Your task to perform on an android device: Check the weather Image 0: 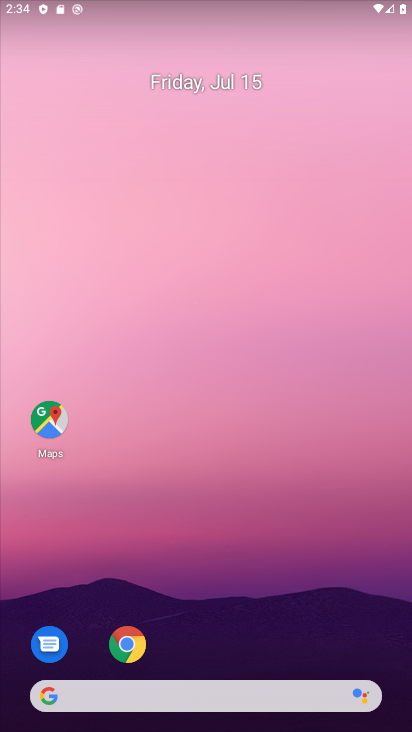
Step 0: drag from (141, 711) to (124, 50)
Your task to perform on an android device: Check the weather Image 1: 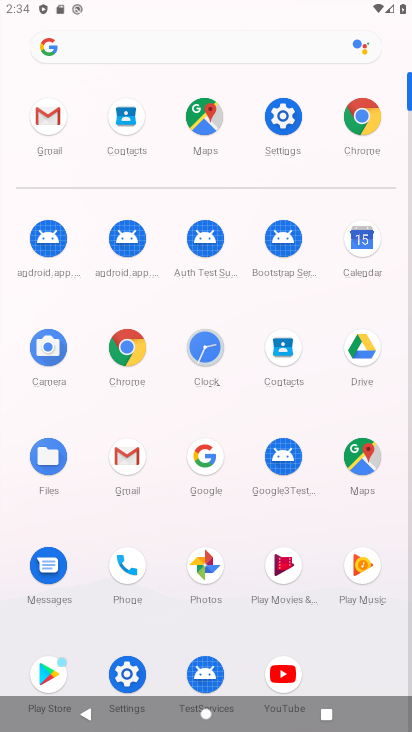
Step 1: click (127, 352)
Your task to perform on an android device: Check the weather Image 2: 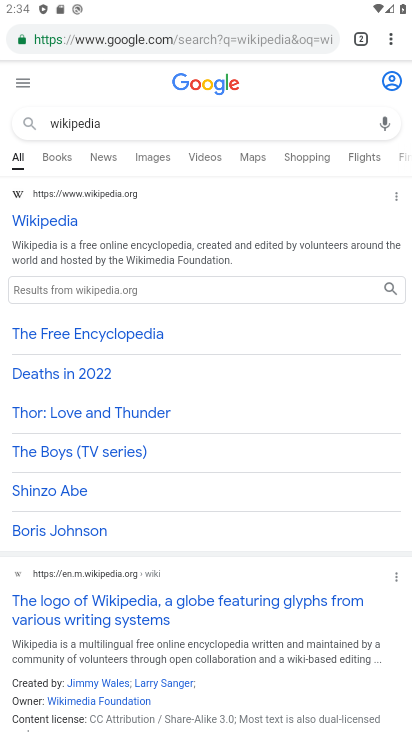
Step 2: click (169, 45)
Your task to perform on an android device: Check the weather Image 3: 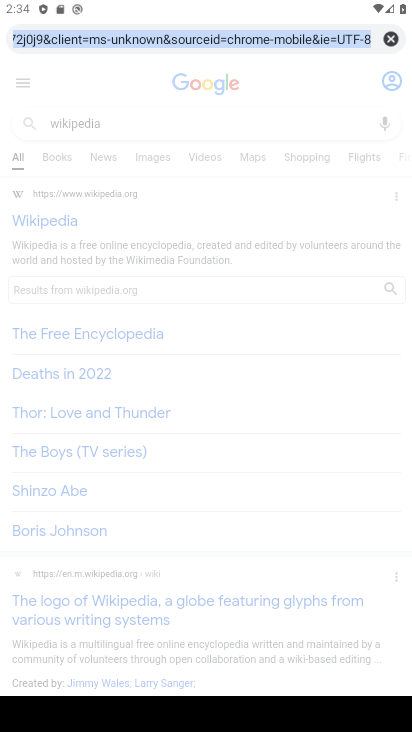
Step 3: type "check the weather"
Your task to perform on an android device: Check the weather Image 4: 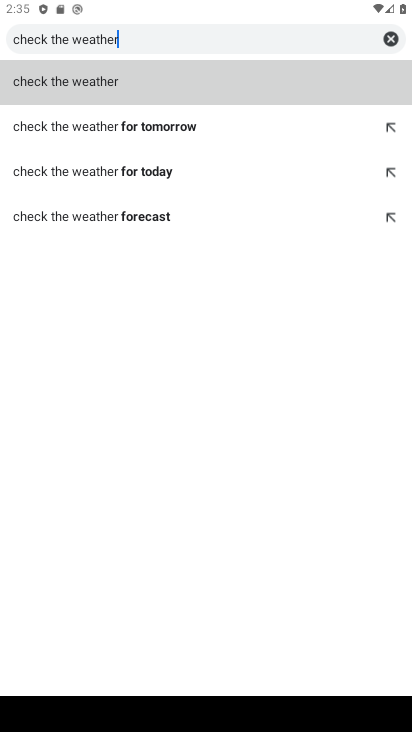
Step 4: click (57, 81)
Your task to perform on an android device: Check the weather Image 5: 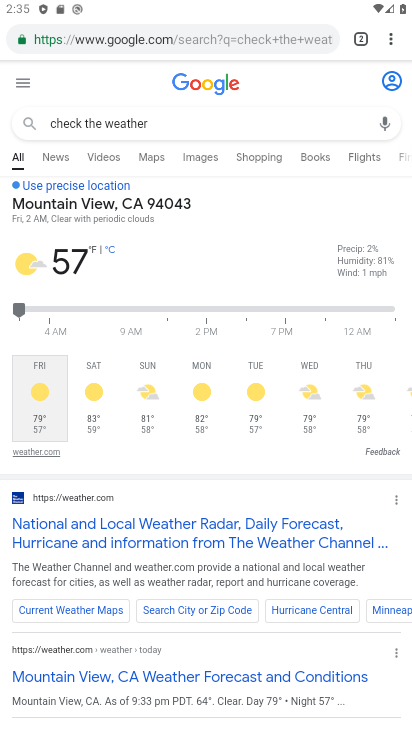
Step 5: task complete